Your task to perform on an android device: change the clock display to analog Image 0: 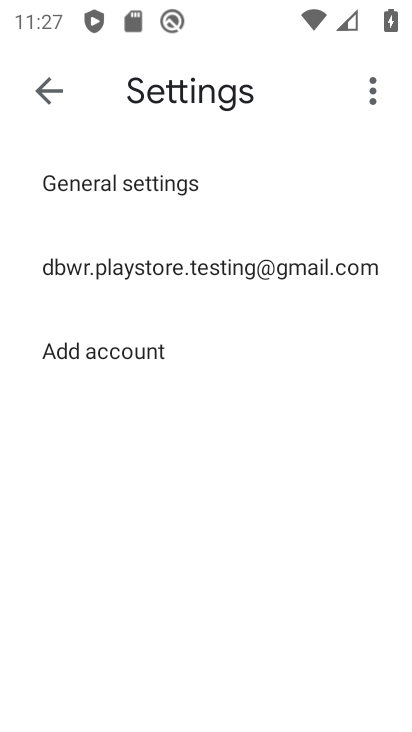
Step 0: press home button
Your task to perform on an android device: change the clock display to analog Image 1: 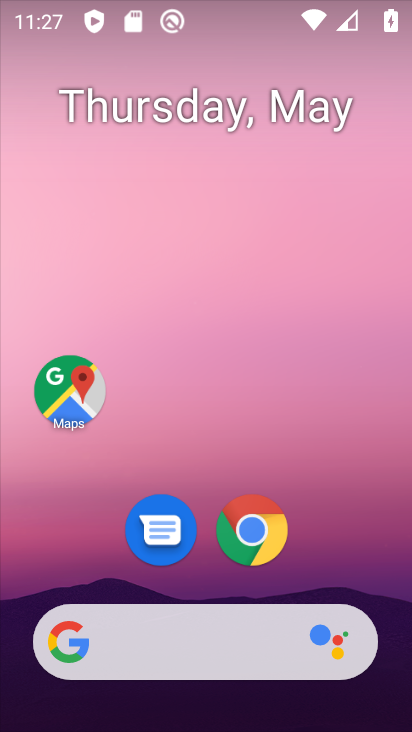
Step 1: drag from (325, 533) to (319, 73)
Your task to perform on an android device: change the clock display to analog Image 2: 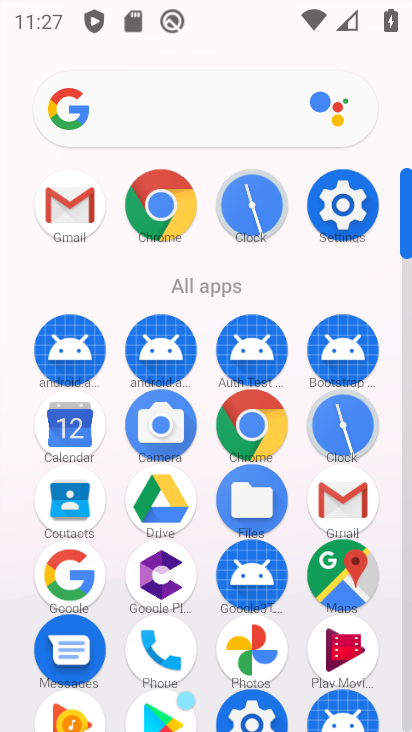
Step 2: click (339, 417)
Your task to perform on an android device: change the clock display to analog Image 3: 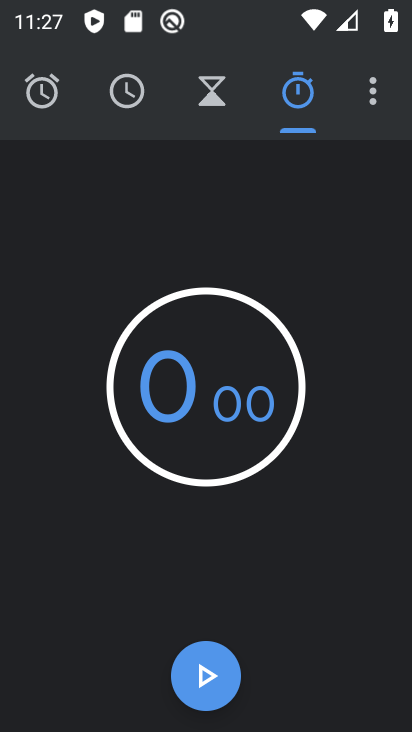
Step 3: click (365, 103)
Your task to perform on an android device: change the clock display to analog Image 4: 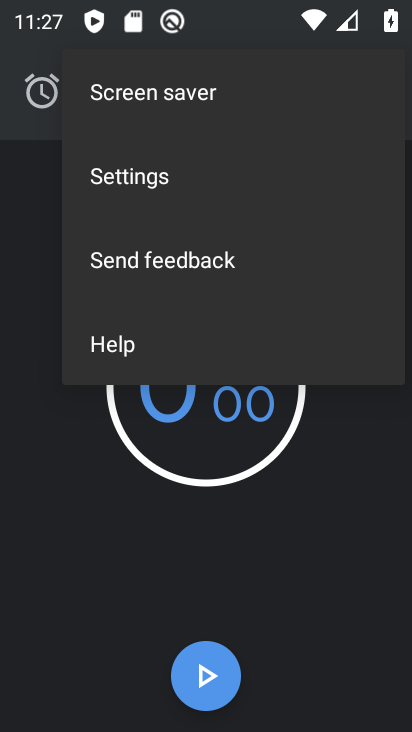
Step 4: click (244, 164)
Your task to perform on an android device: change the clock display to analog Image 5: 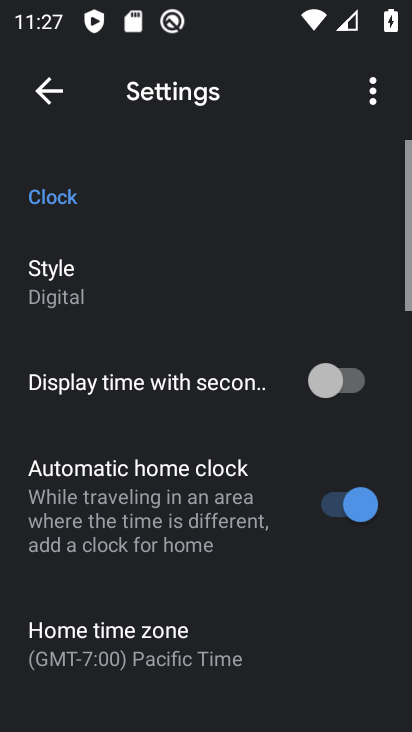
Step 5: click (100, 264)
Your task to perform on an android device: change the clock display to analog Image 6: 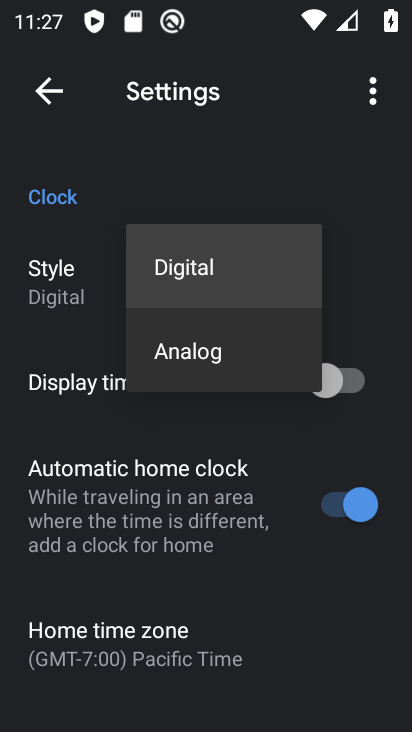
Step 6: click (164, 349)
Your task to perform on an android device: change the clock display to analog Image 7: 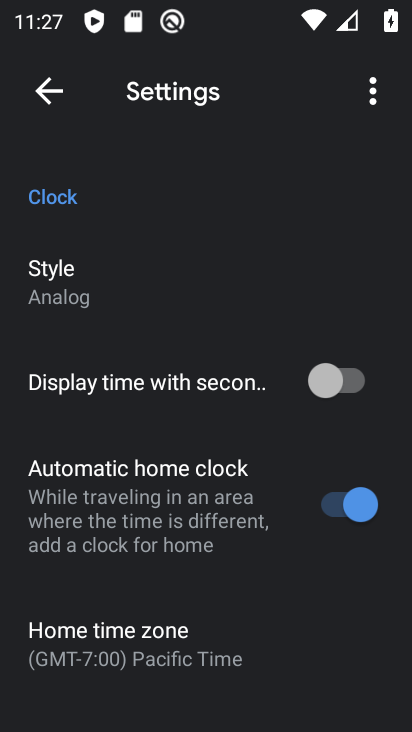
Step 7: task complete